Your task to perform on an android device: Open Google Chrome and click the shortcut for Amazon.com Image 0: 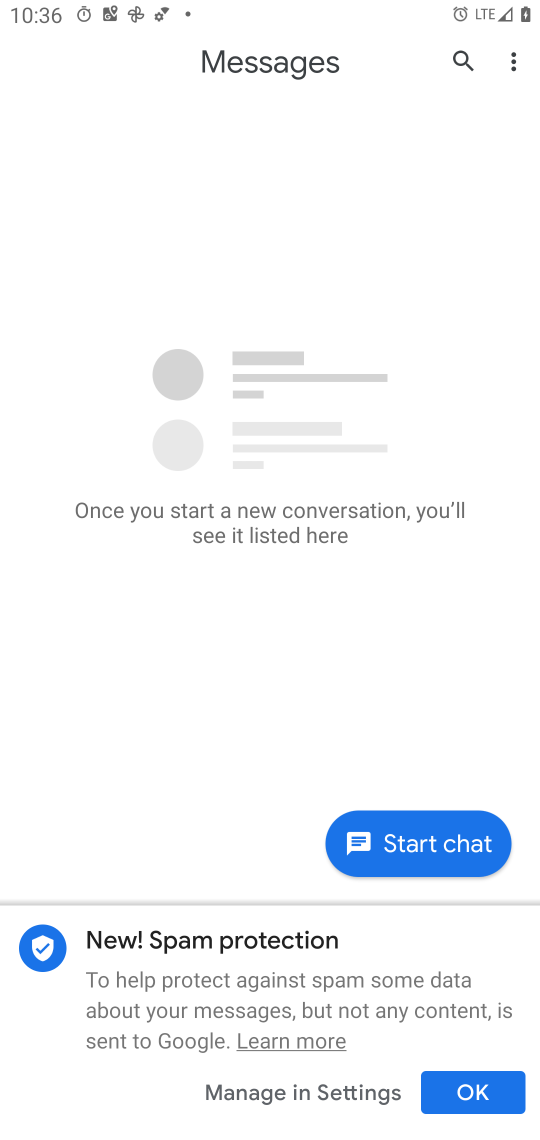
Step 0: press home button
Your task to perform on an android device: Open Google Chrome and click the shortcut for Amazon.com Image 1: 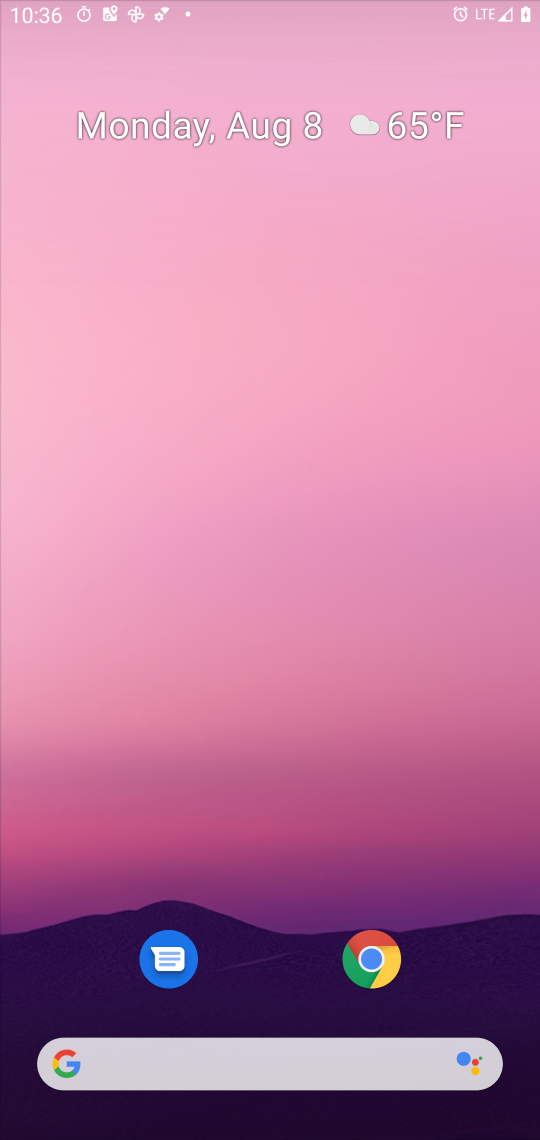
Step 1: drag from (461, 970) to (239, 39)
Your task to perform on an android device: Open Google Chrome and click the shortcut for Amazon.com Image 2: 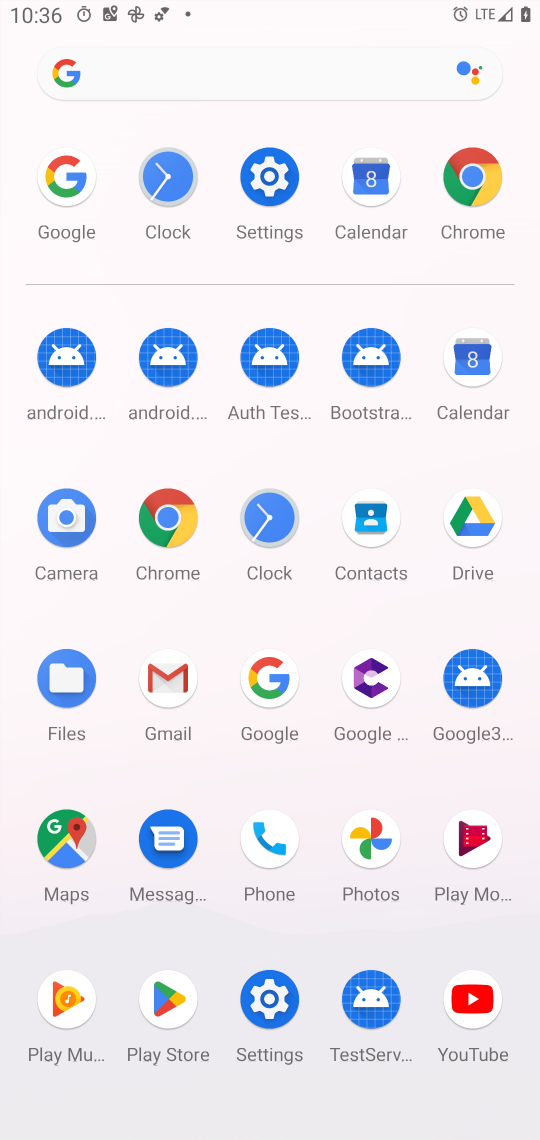
Step 2: click (160, 514)
Your task to perform on an android device: Open Google Chrome and click the shortcut for Amazon.com Image 3: 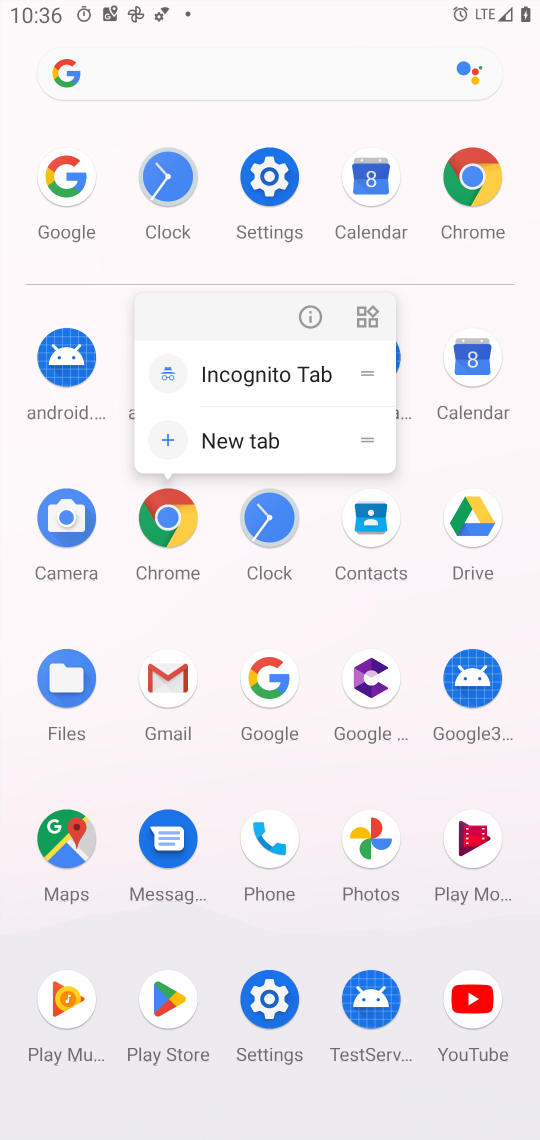
Step 3: click (160, 514)
Your task to perform on an android device: Open Google Chrome and click the shortcut for Amazon.com Image 4: 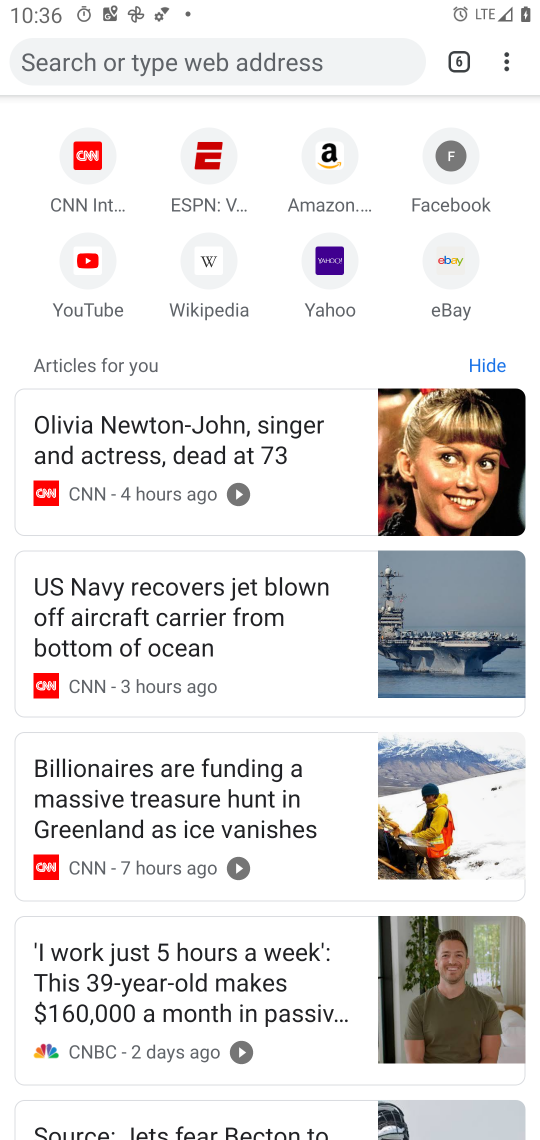
Step 4: click (344, 174)
Your task to perform on an android device: Open Google Chrome and click the shortcut for Amazon.com Image 5: 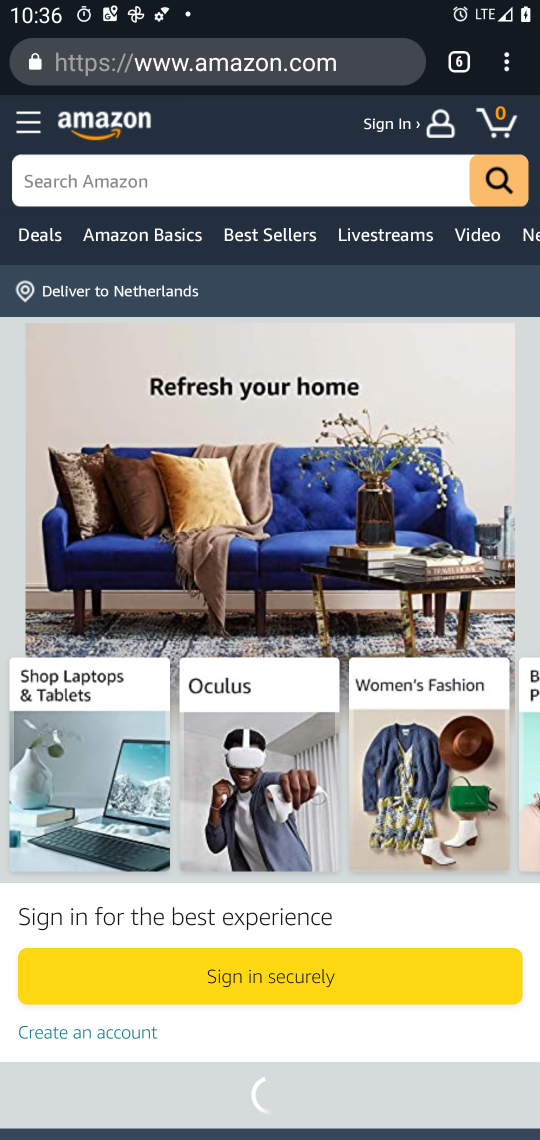
Step 5: task complete